Your task to perform on an android device: remove spam from my inbox in the gmail app Image 0: 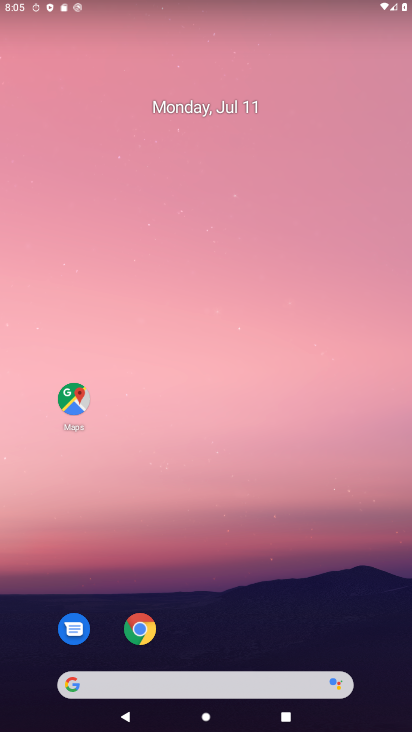
Step 0: drag from (228, 655) to (330, 89)
Your task to perform on an android device: remove spam from my inbox in the gmail app Image 1: 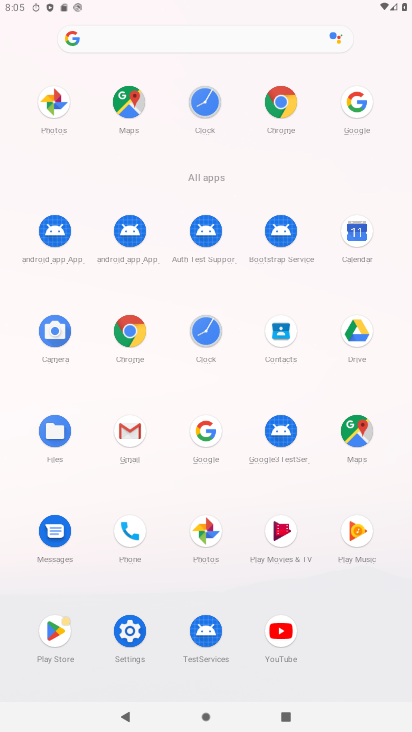
Step 1: click (133, 444)
Your task to perform on an android device: remove spam from my inbox in the gmail app Image 2: 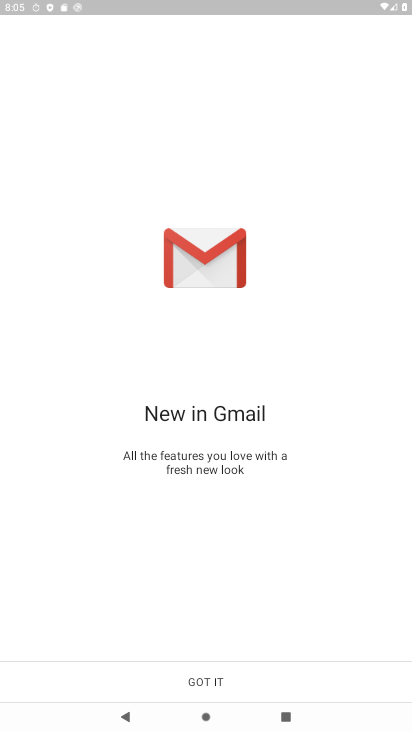
Step 2: click (208, 688)
Your task to perform on an android device: remove spam from my inbox in the gmail app Image 3: 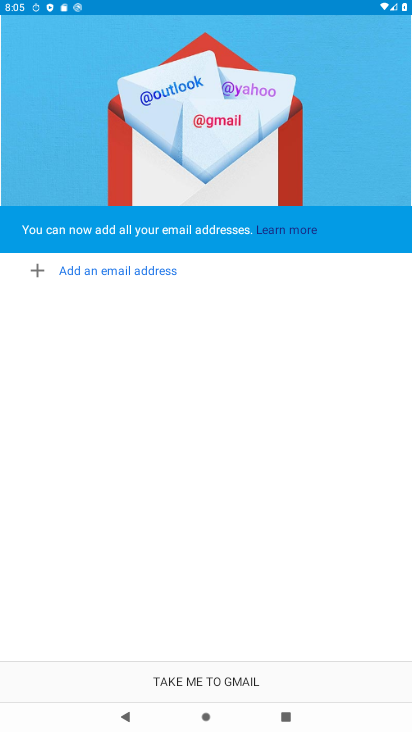
Step 3: click (209, 686)
Your task to perform on an android device: remove spam from my inbox in the gmail app Image 4: 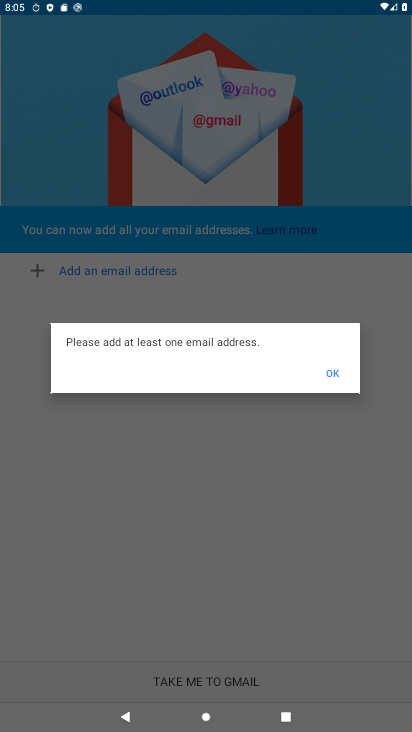
Step 4: task complete